Your task to perform on an android device: turn off notifications in google photos Image 0: 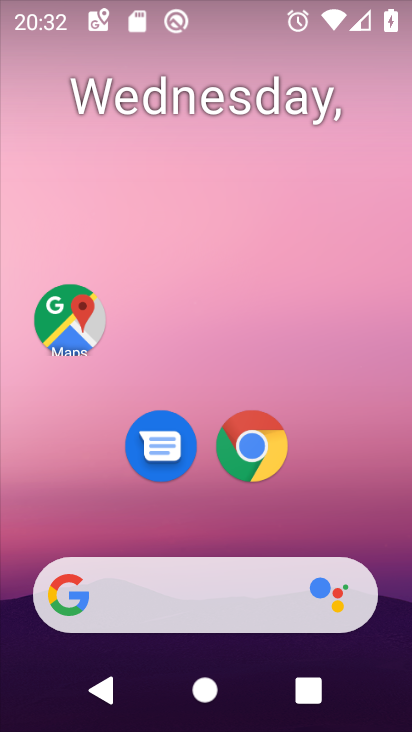
Step 0: click (217, 259)
Your task to perform on an android device: turn off notifications in google photos Image 1: 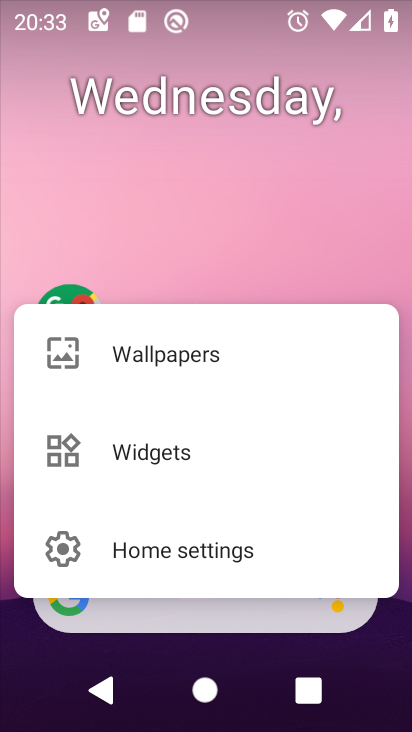
Step 1: press home button
Your task to perform on an android device: turn off notifications in google photos Image 2: 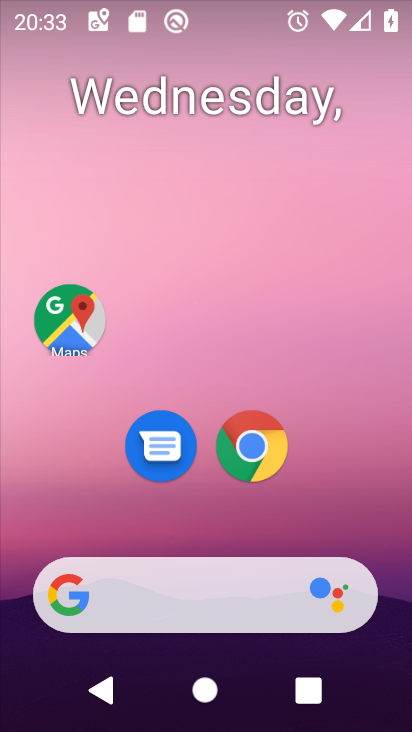
Step 2: drag from (209, 586) to (230, 128)
Your task to perform on an android device: turn off notifications in google photos Image 3: 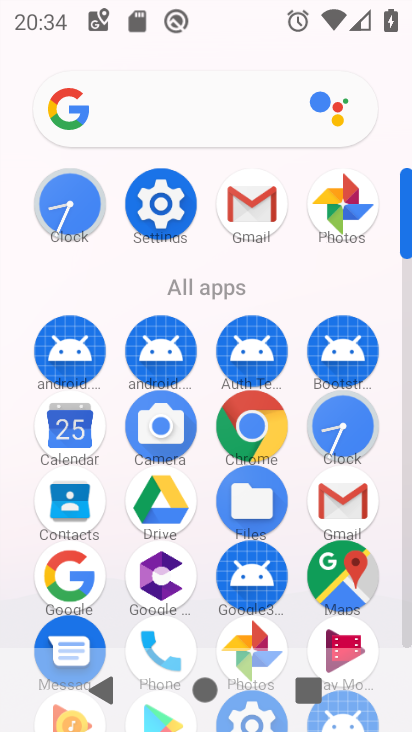
Step 3: click (249, 633)
Your task to perform on an android device: turn off notifications in google photos Image 4: 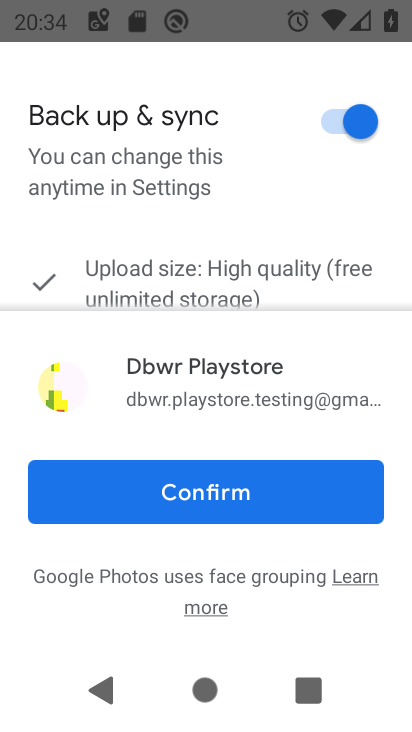
Step 4: click (213, 489)
Your task to perform on an android device: turn off notifications in google photos Image 5: 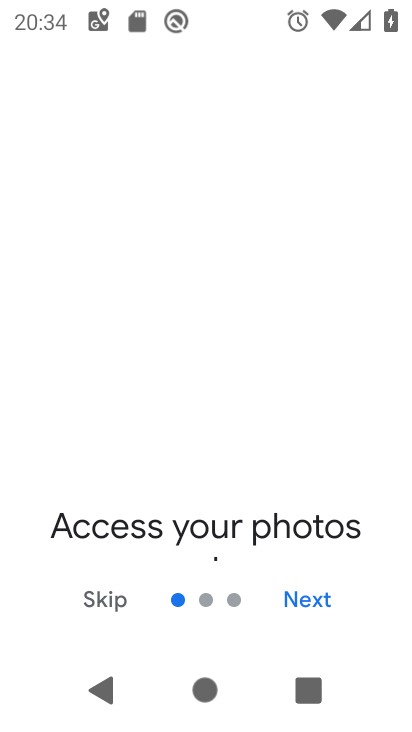
Step 5: click (109, 612)
Your task to perform on an android device: turn off notifications in google photos Image 6: 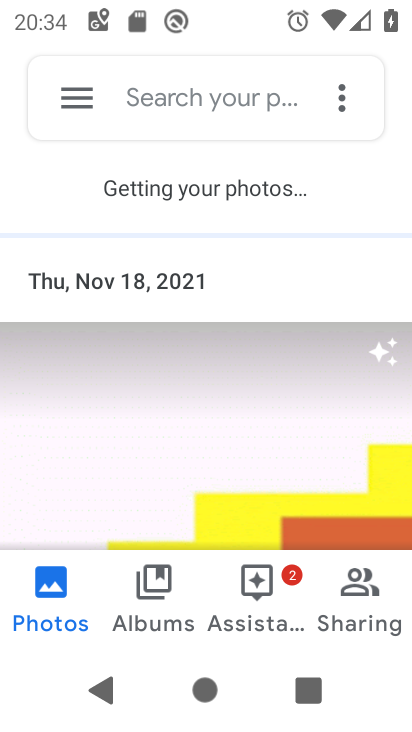
Step 6: click (61, 104)
Your task to perform on an android device: turn off notifications in google photos Image 7: 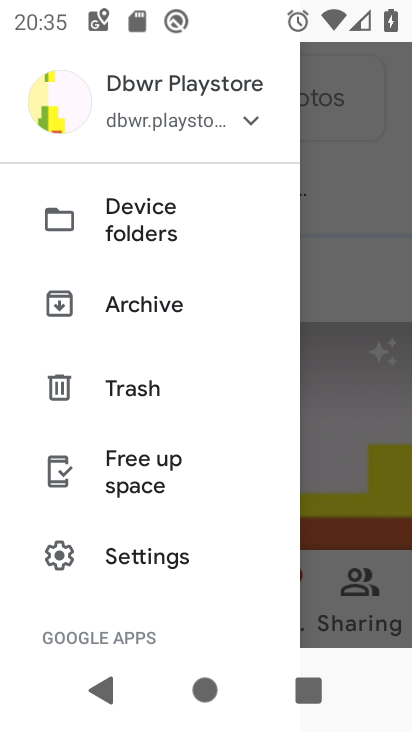
Step 7: click (134, 556)
Your task to perform on an android device: turn off notifications in google photos Image 8: 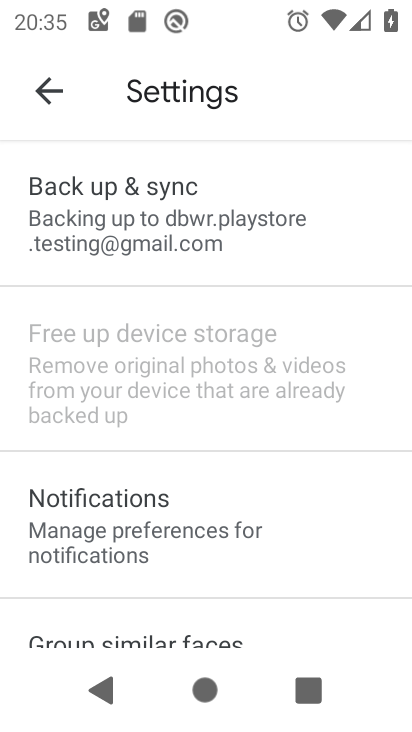
Step 8: click (125, 511)
Your task to perform on an android device: turn off notifications in google photos Image 9: 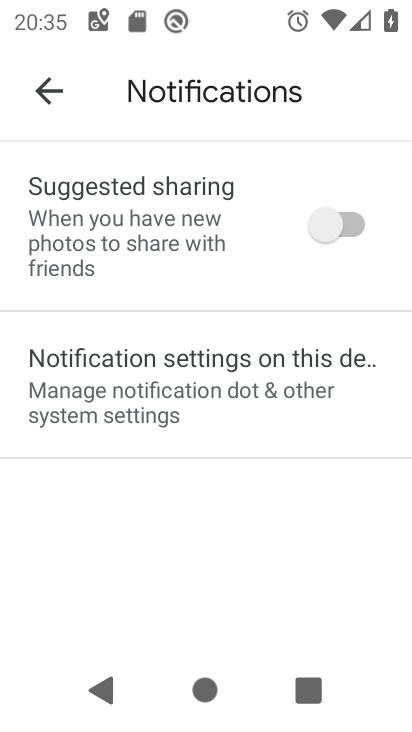
Step 9: click (208, 401)
Your task to perform on an android device: turn off notifications in google photos Image 10: 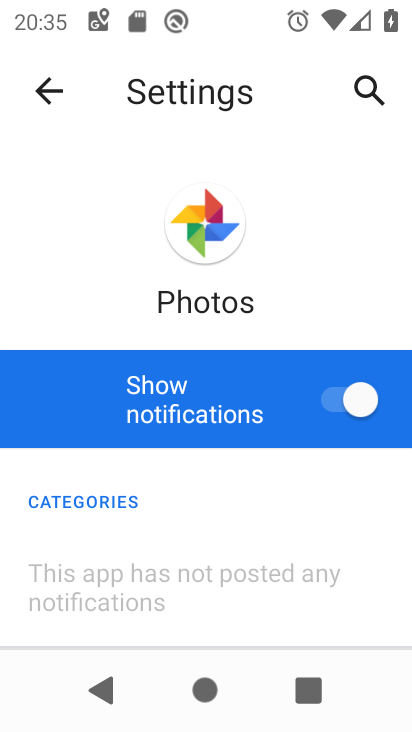
Step 10: click (331, 415)
Your task to perform on an android device: turn off notifications in google photos Image 11: 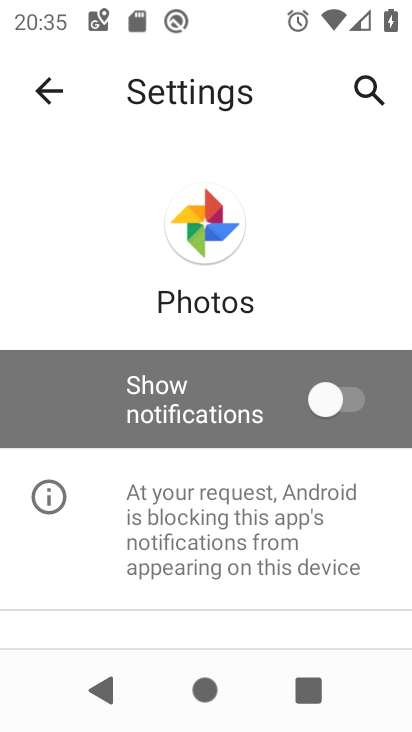
Step 11: task complete